Your task to perform on an android device: Toggle the flashlight Image 0: 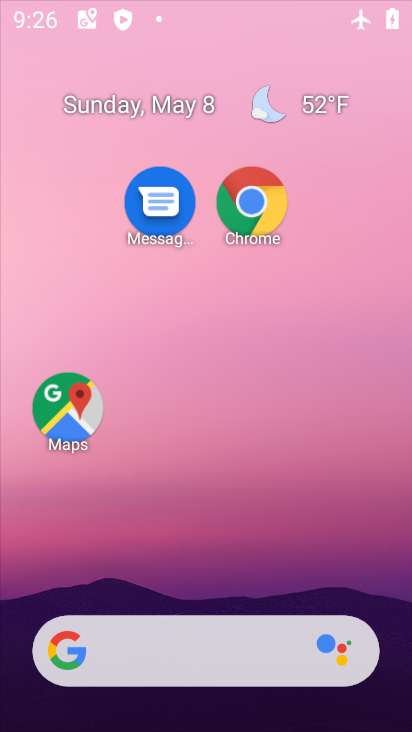
Step 0: drag from (221, 524) to (144, 14)
Your task to perform on an android device: Toggle the flashlight Image 1: 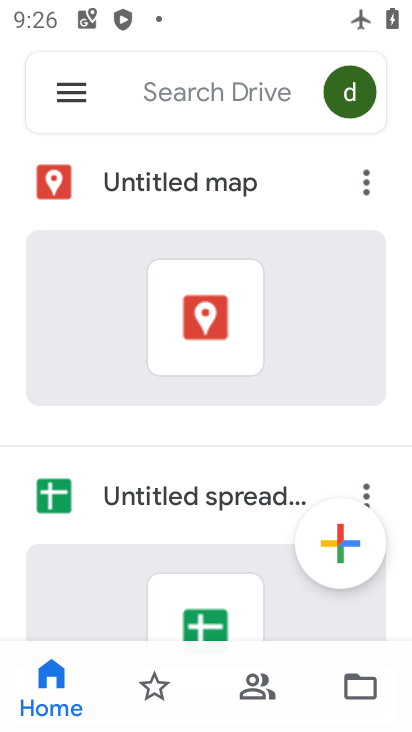
Step 1: press home button
Your task to perform on an android device: Toggle the flashlight Image 2: 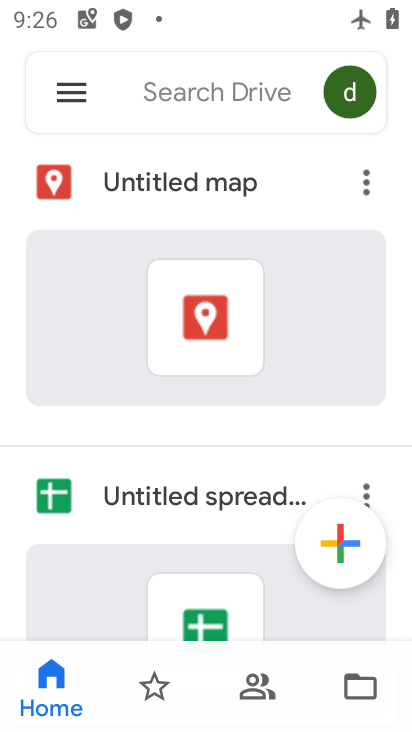
Step 2: drag from (144, 14) to (174, 718)
Your task to perform on an android device: Toggle the flashlight Image 3: 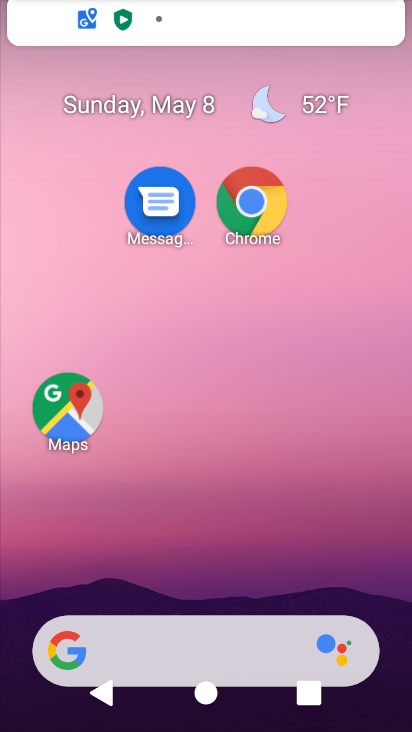
Step 3: drag from (224, 611) to (160, 0)
Your task to perform on an android device: Toggle the flashlight Image 4: 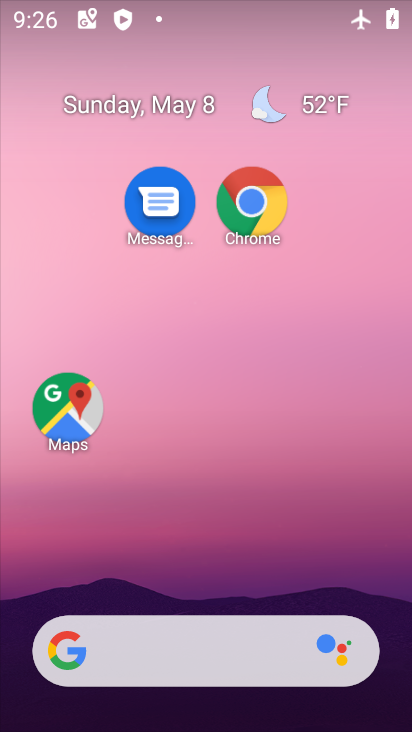
Step 4: drag from (197, 575) to (312, 25)
Your task to perform on an android device: Toggle the flashlight Image 5: 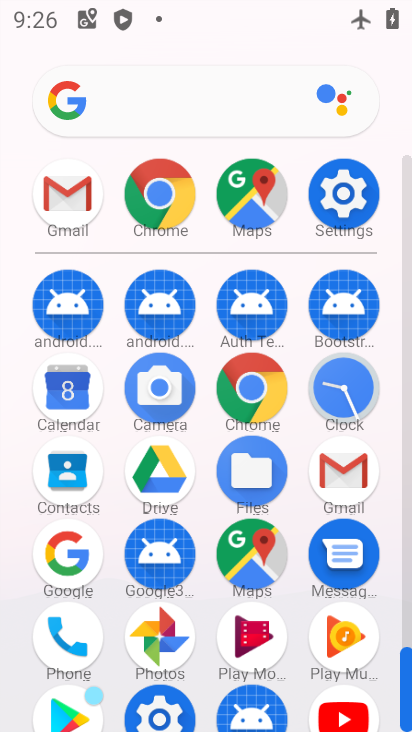
Step 5: click (329, 190)
Your task to perform on an android device: Toggle the flashlight Image 6: 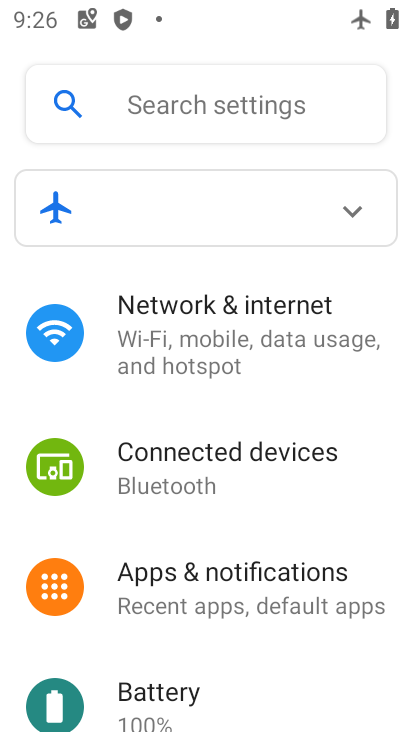
Step 6: click (203, 111)
Your task to perform on an android device: Toggle the flashlight Image 7: 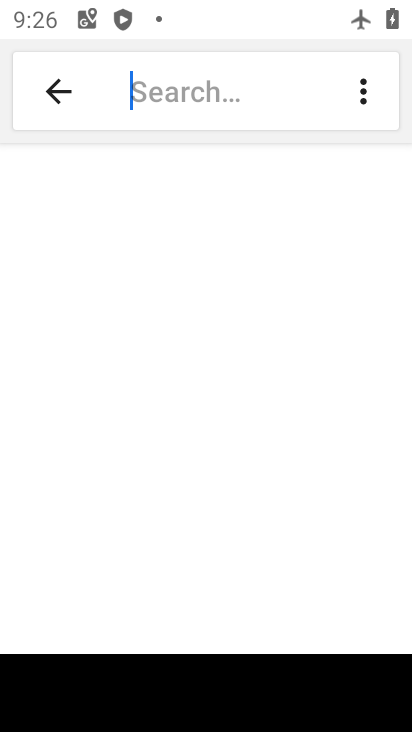
Step 7: type "flashlight"
Your task to perform on an android device: Toggle the flashlight Image 8: 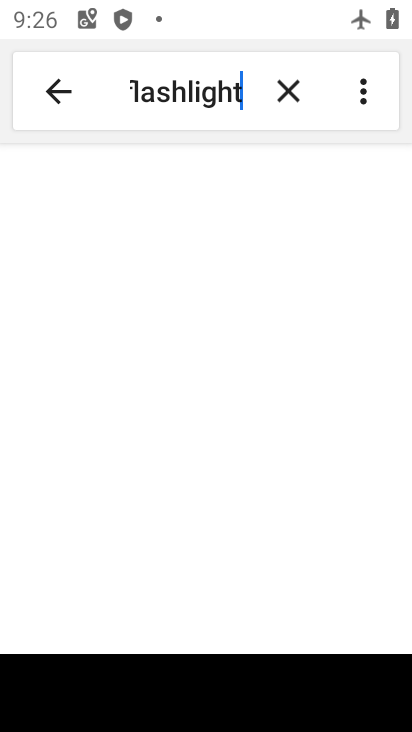
Step 8: task complete